Your task to perform on an android device: Is it going to rain tomorrow? Image 0: 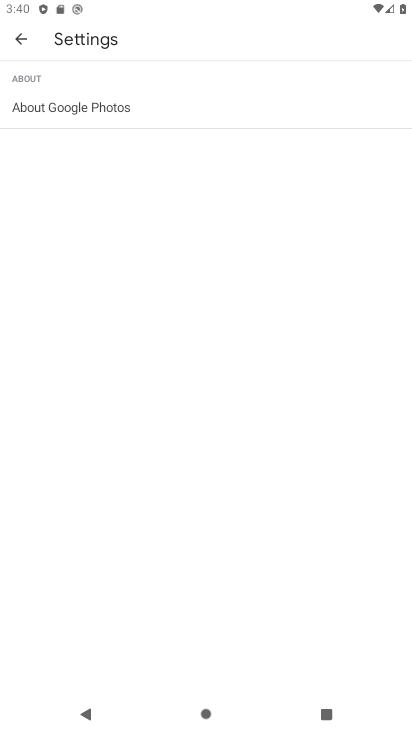
Step 0: press home button
Your task to perform on an android device: Is it going to rain tomorrow? Image 1: 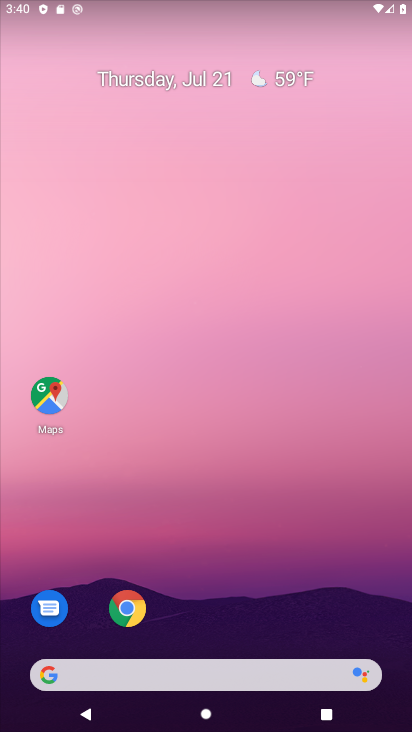
Step 1: drag from (282, 659) to (402, 72)
Your task to perform on an android device: Is it going to rain tomorrow? Image 2: 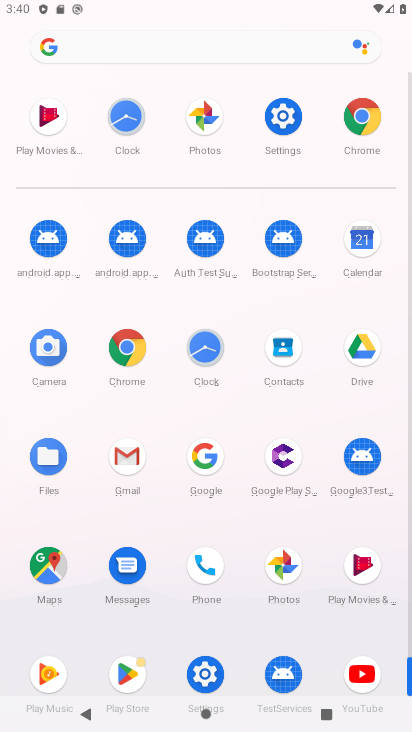
Step 2: click (128, 348)
Your task to perform on an android device: Is it going to rain tomorrow? Image 3: 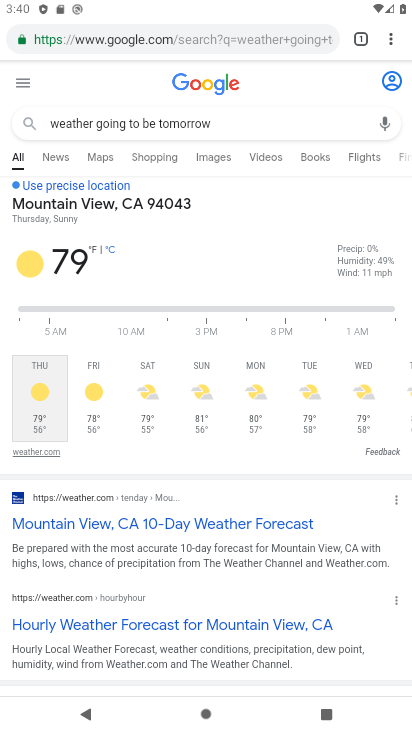
Step 3: click (233, 42)
Your task to perform on an android device: Is it going to rain tomorrow? Image 4: 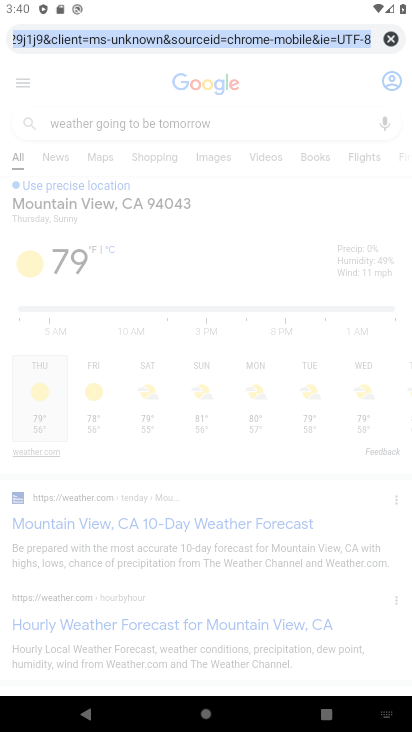
Step 4: type "is it going to rain tomorrow"
Your task to perform on an android device: Is it going to rain tomorrow? Image 5: 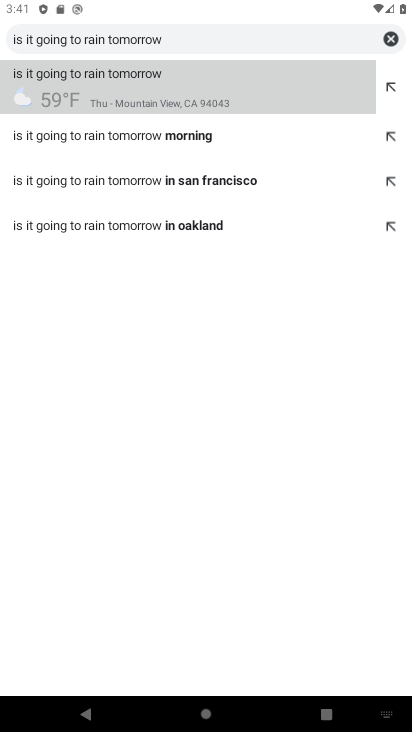
Step 5: click (213, 73)
Your task to perform on an android device: Is it going to rain tomorrow? Image 6: 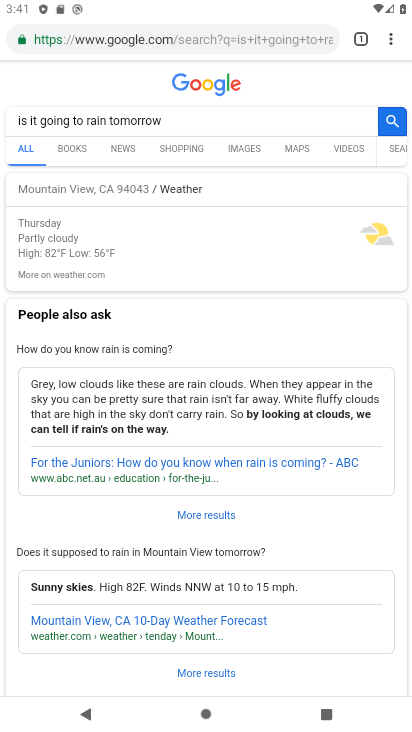
Step 6: task complete